Your task to perform on an android device: open app "NewsBreak: Local News & Alerts" Image 0: 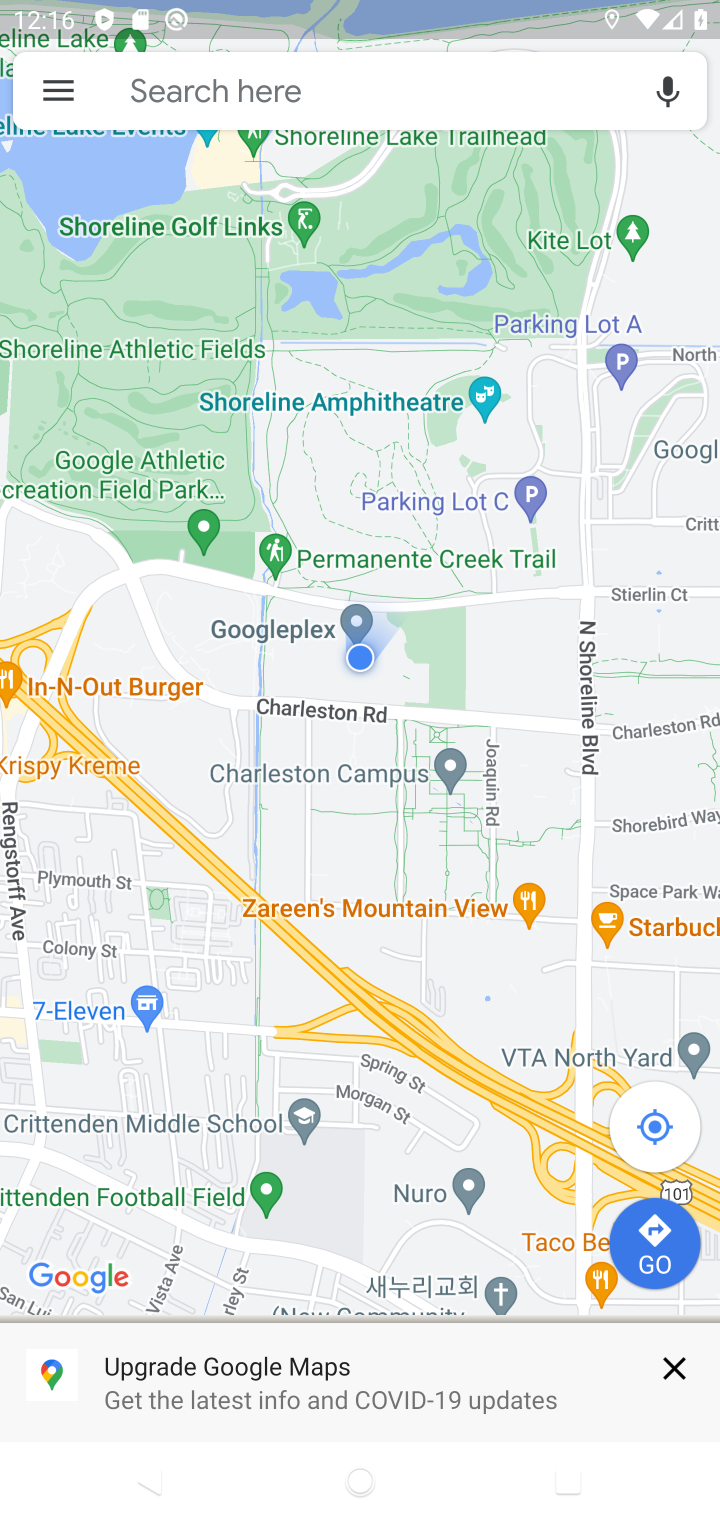
Step 0: press home button
Your task to perform on an android device: open app "NewsBreak: Local News & Alerts" Image 1: 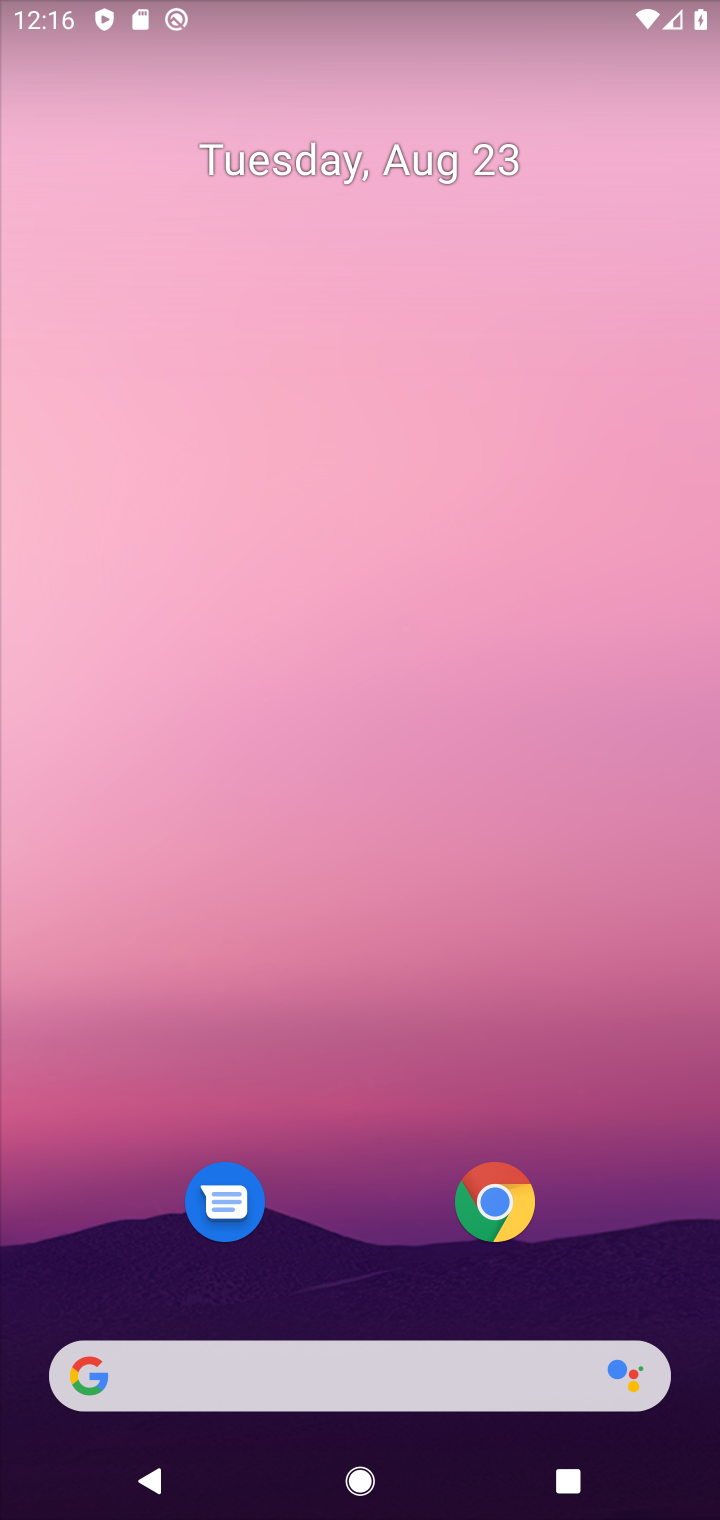
Step 1: drag from (391, 1354) to (230, 32)
Your task to perform on an android device: open app "NewsBreak: Local News & Alerts" Image 2: 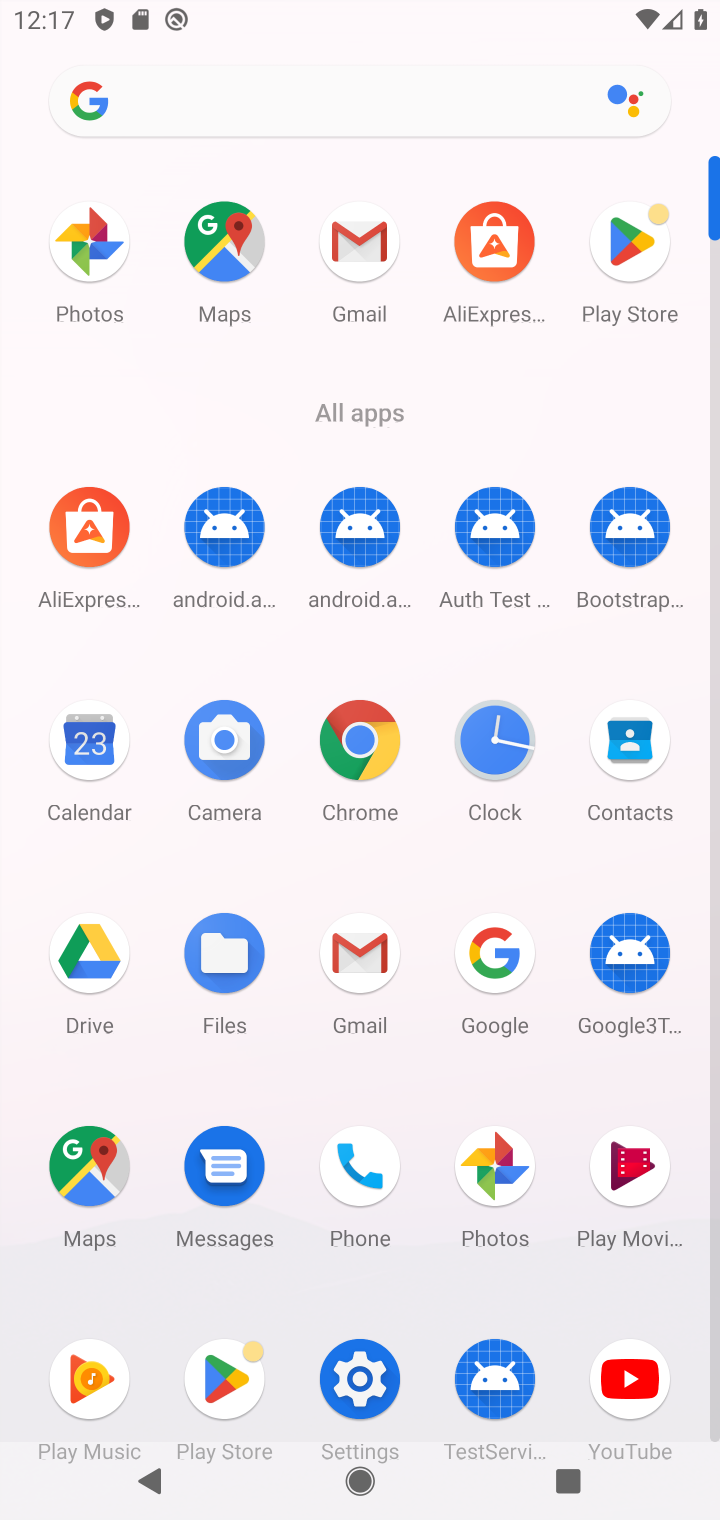
Step 2: click (631, 257)
Your task to perform on an android device: open app "NewsBreak: Local News & Alerts" Image 3: 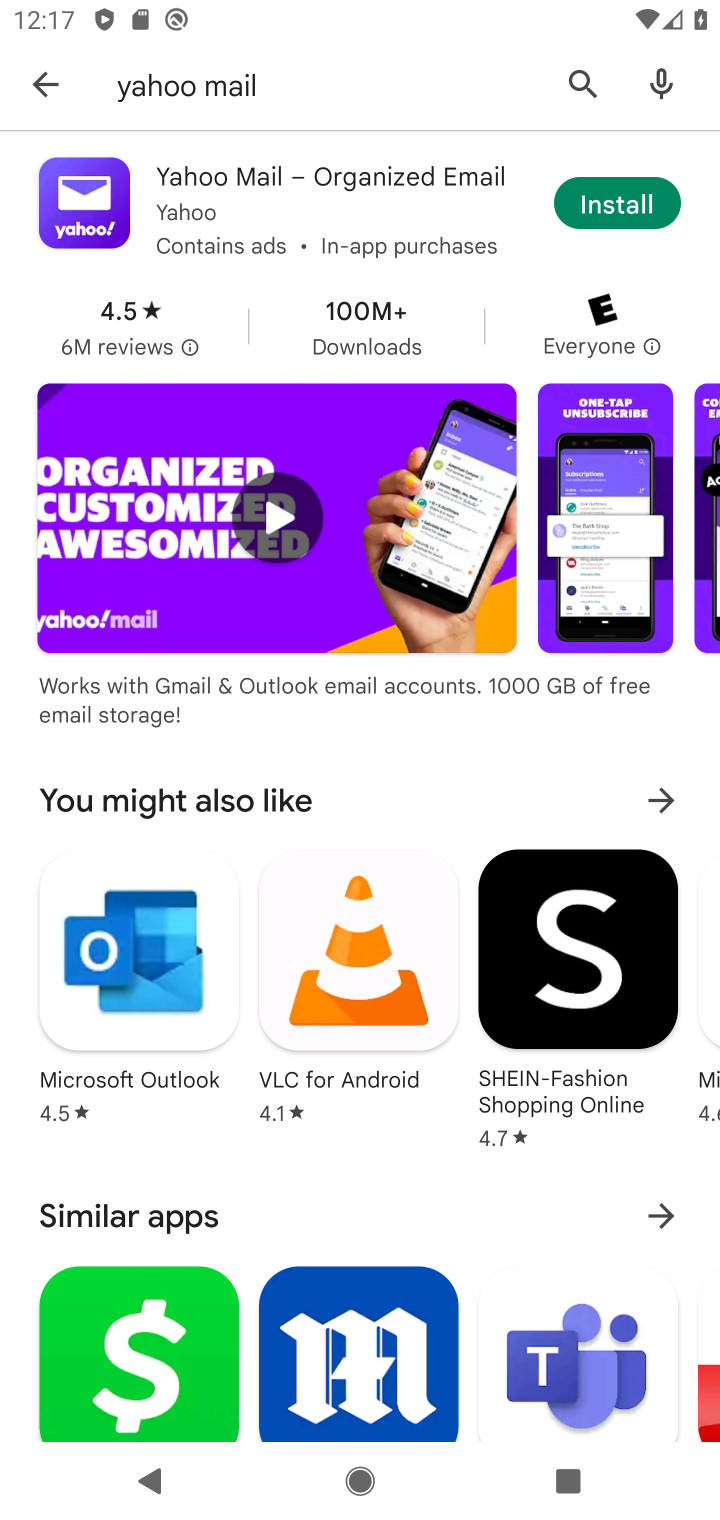
Step 3: click (582, 72)
Your task to perform on an android device: open app "NewsBreak: Local News & Alerts" Image 4: 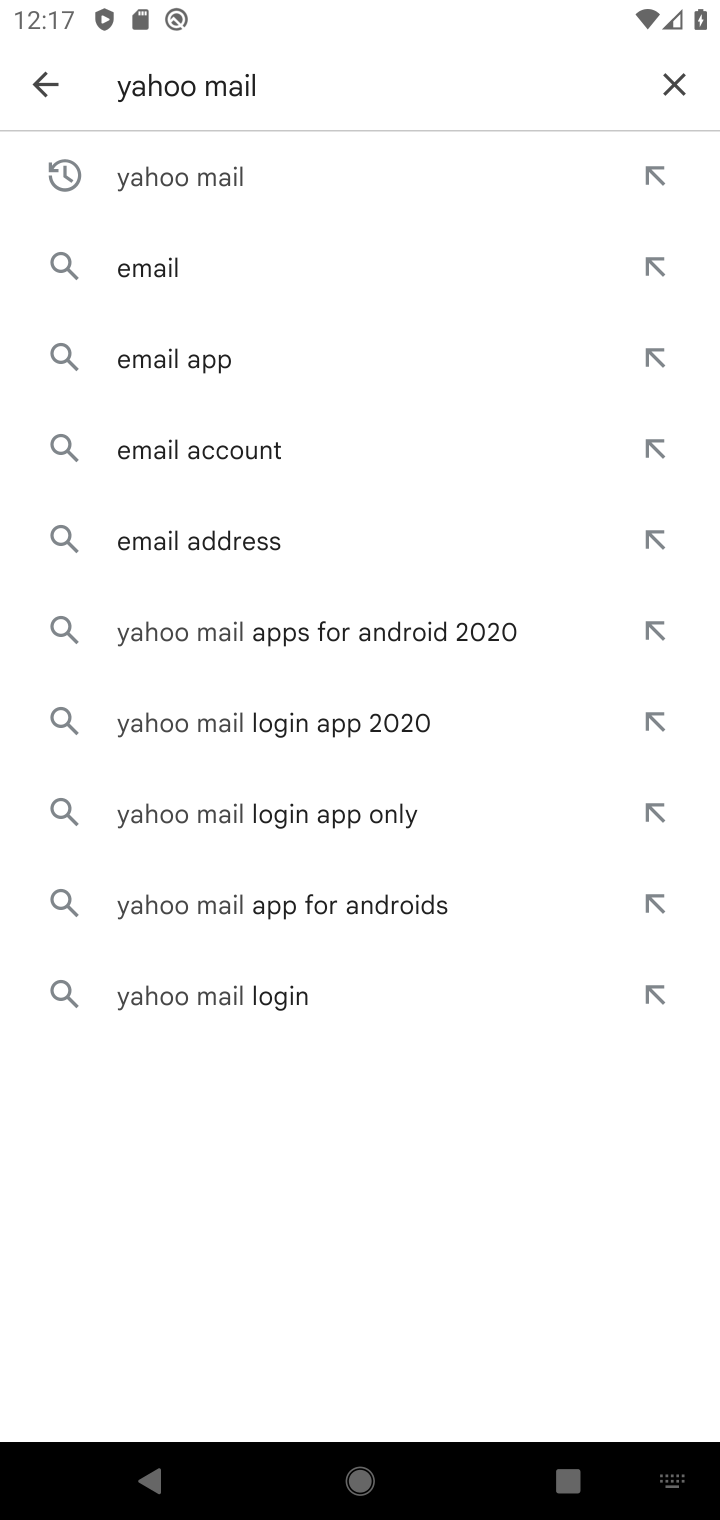
Step 4: click (689, 67)
Your task to perform on an android device: open app "NewsBreak: Local News & Alerts" Image 5: 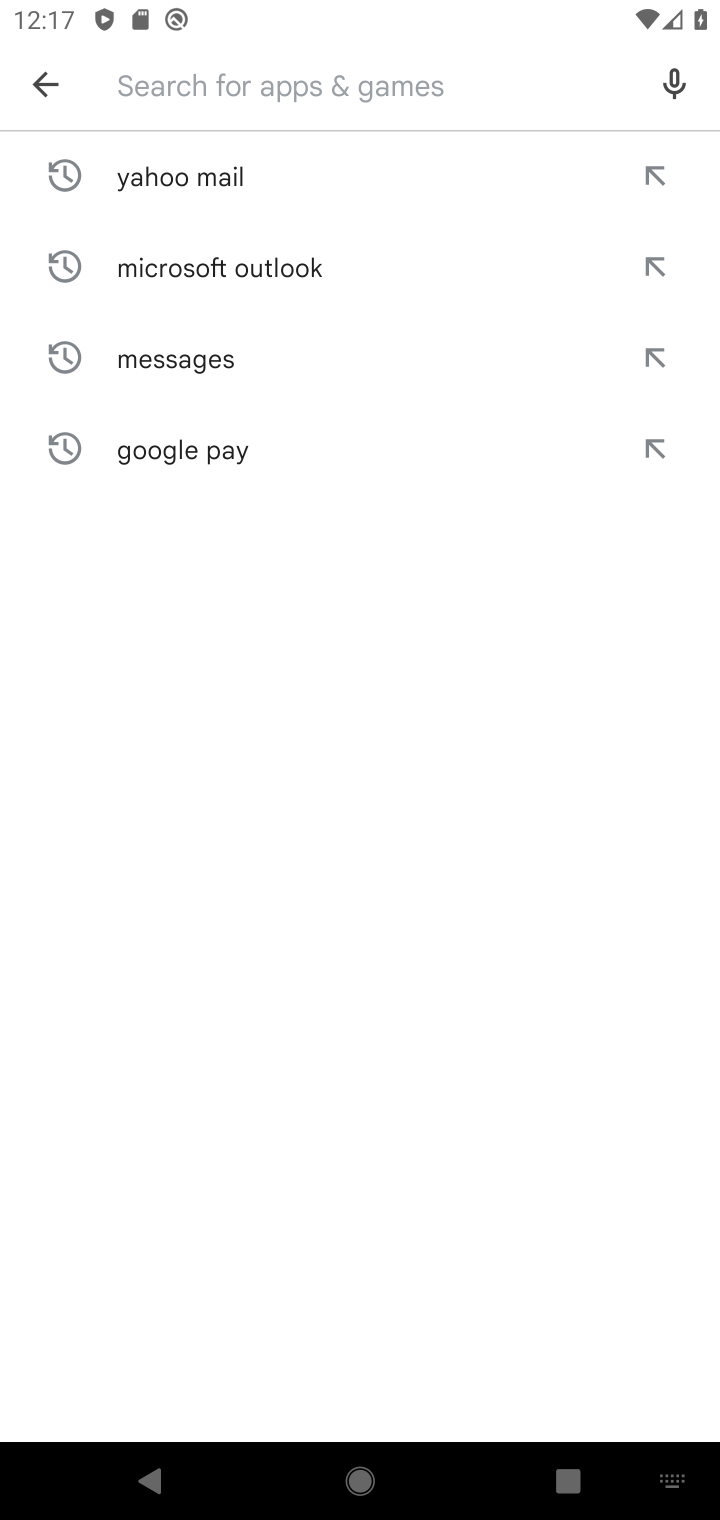
Step 5: type "newsbreak"
Your task to perform on an android device: open app "NewsBreak: Local News & Alerts" Image 6: 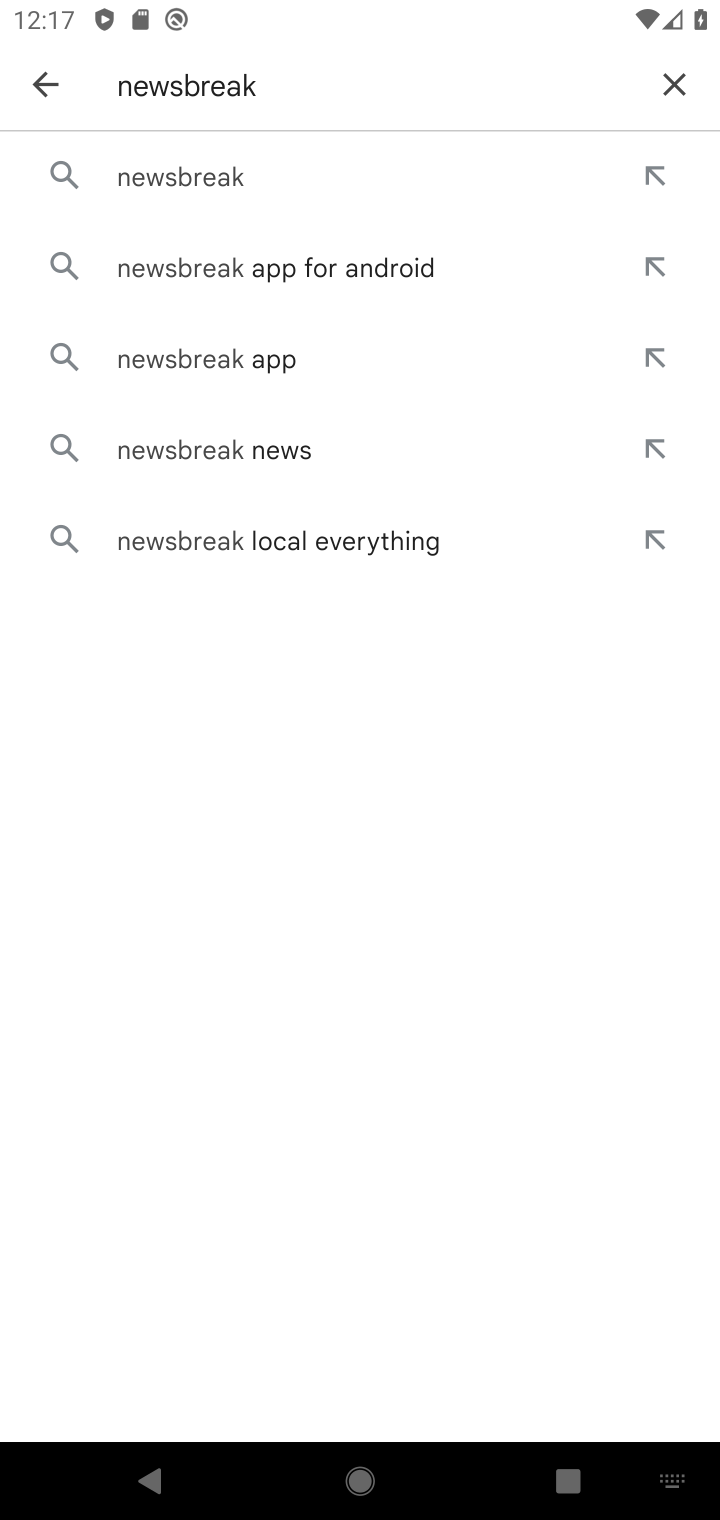
Step 6: click (208, 162)
Your task to perform on an android device: open app "NewsBreak: Local News & Alerts" Image 7: 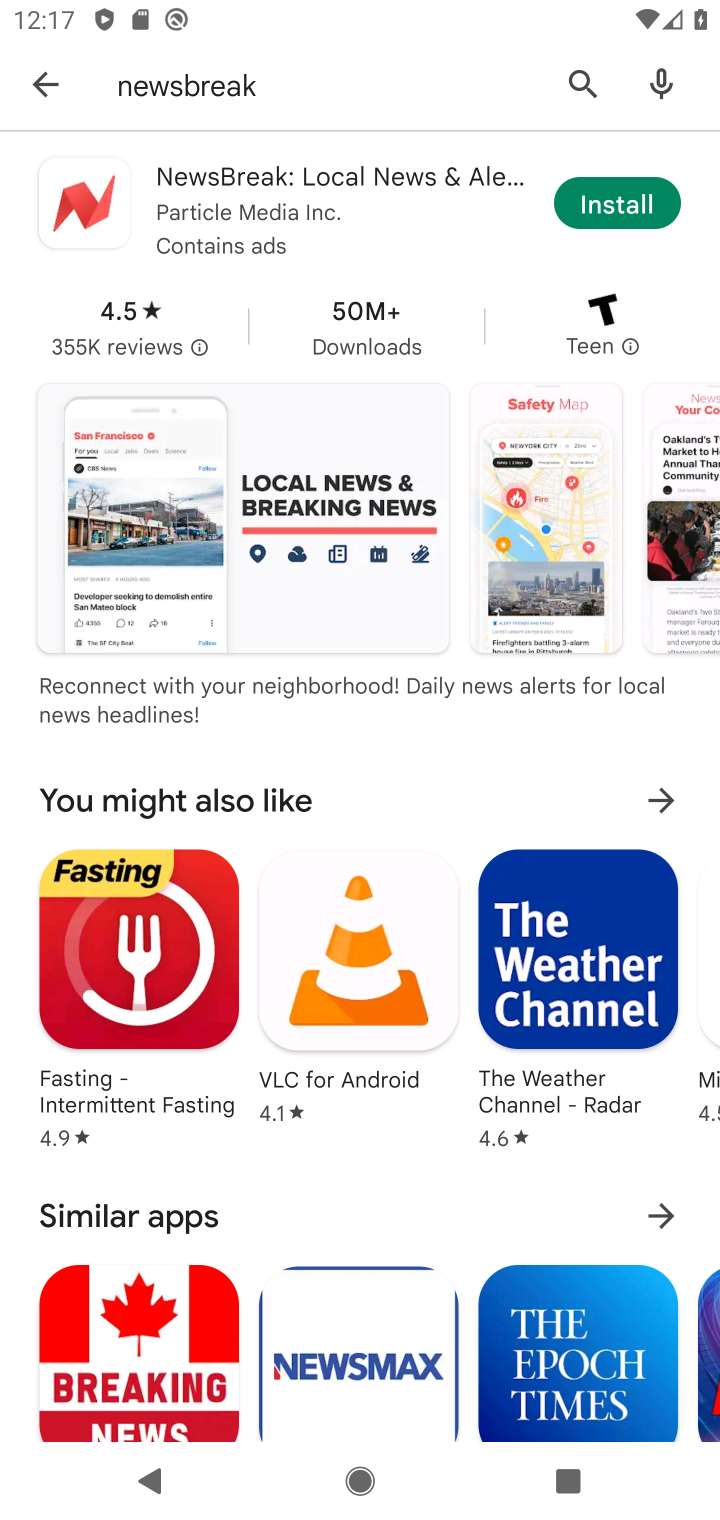
Step 7: task complete